Your task to perform on an android device: Find coffee shops on Maps Image 0: 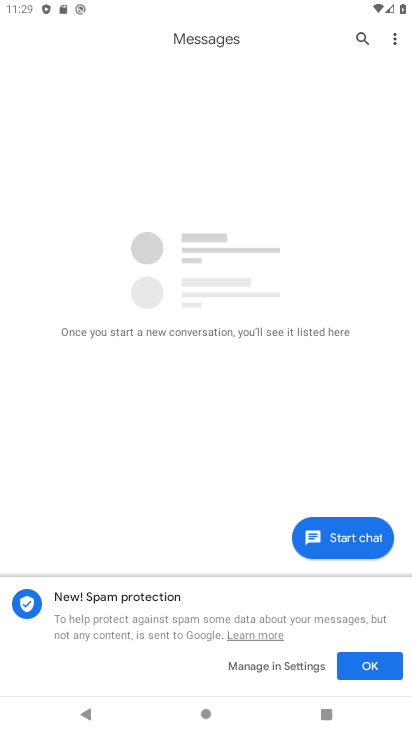
Step 0: press home button
Your task to perform on an android device: Find coffee shops on Maps Image 1: 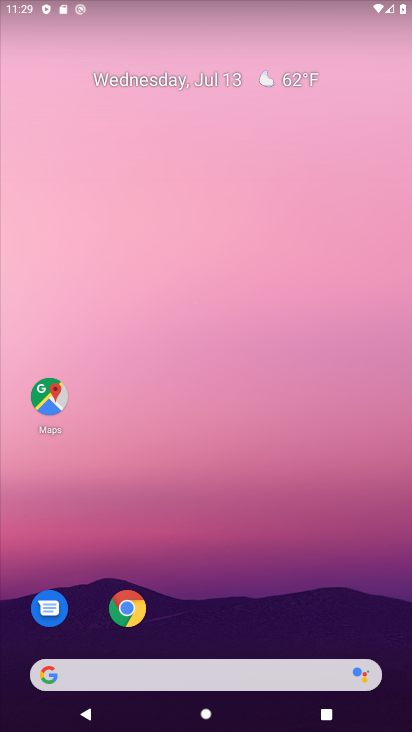
Step 1: drag from (237, 640) to (231, 164)
Your task to perform on an android device: Find coffee shops on Maps Image 2: 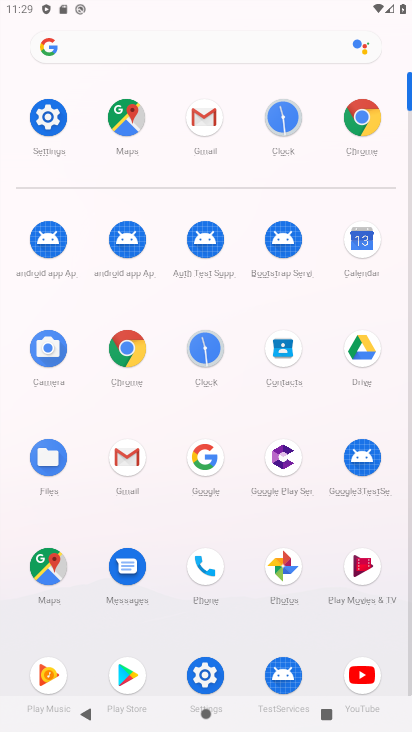
Step 2: click (38, 568)
Your task to perform on an android device: Find coffee shops on Maps Image 3: 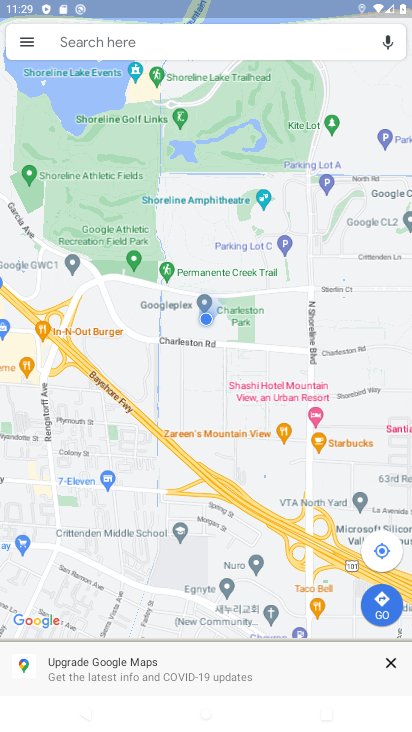
Step 3: click (194, 41)
Your task to perform on an android device: Find coffee shops on Maps Image 4: 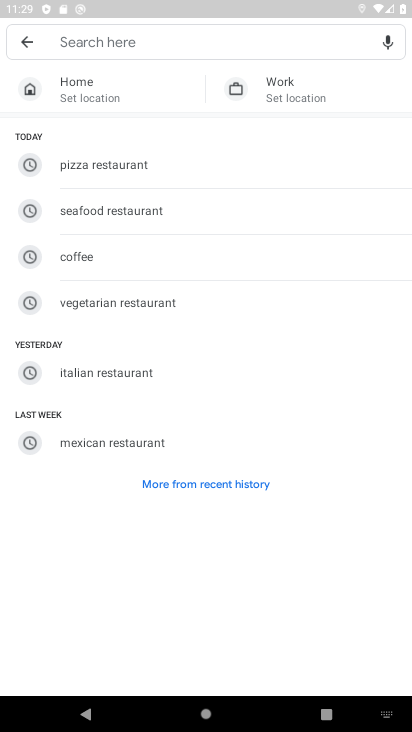
Step 4: type "coffee shops"
Your task to perform on an android device: Find coffee shops on Maps Image 5: 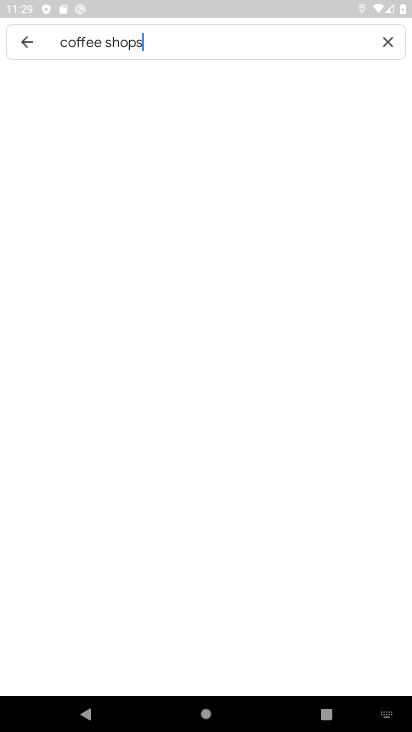
Step 5: type ""
Your task to perform on an android device: Find coffee shops on Maps Image 6: 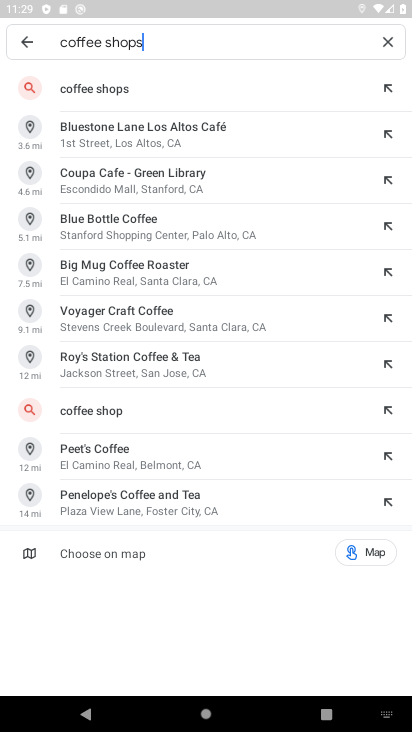
Step 6: click (97, 90)
Your task to perform on an android device: Find coffee shops on Maps Image 7: 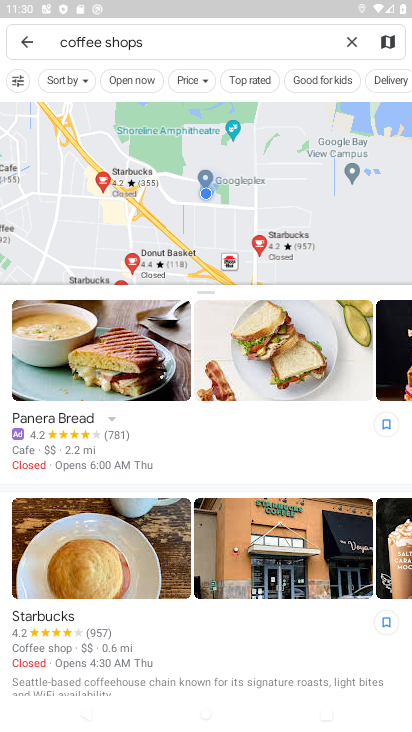
Step 7: task complete